Your task to perform on an android device: turn off translation in the chrome app Image 0: 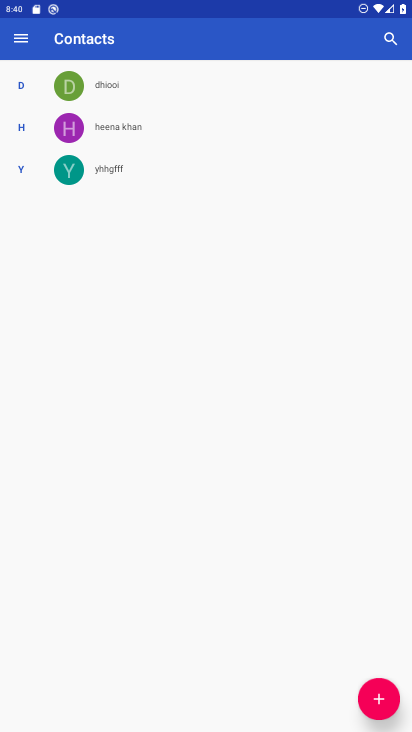
Step 0: press home button
Your task to perform on an android device: turn off translation in the chrome app Image 1: 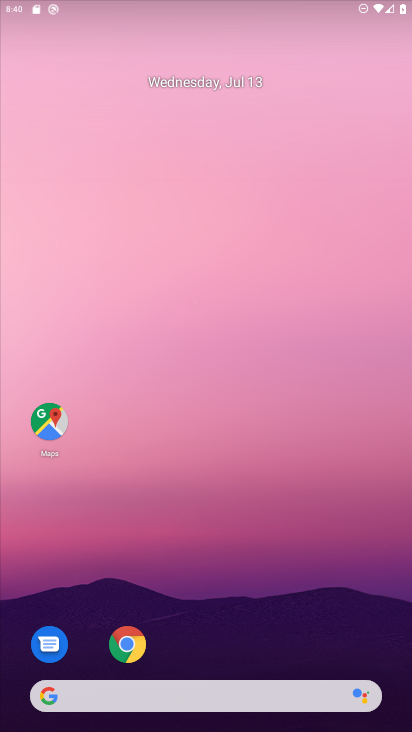
Step 1: drag from (204, 564) to (280, 98)
Your task to perform on an android device: turn off translation in the chrome app Image 2: 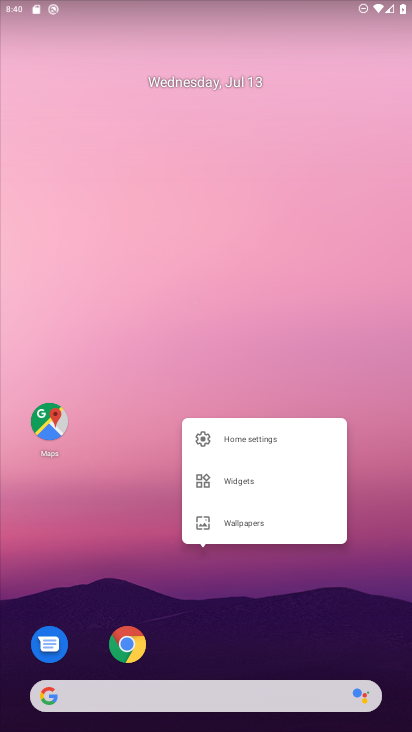
Step 2: click (147, 629)
Your task to perform on an android device: turn off translation in the chrome app Image 3: 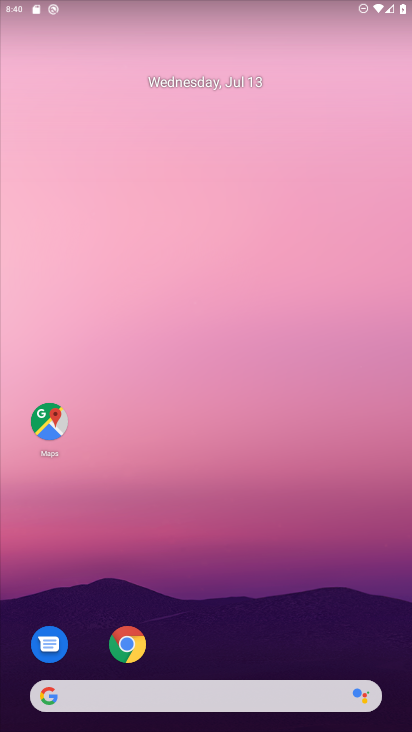
Step 3: click (144, 631)
Your task to perform on an android device: turn off translation in the chrome app Image 4: 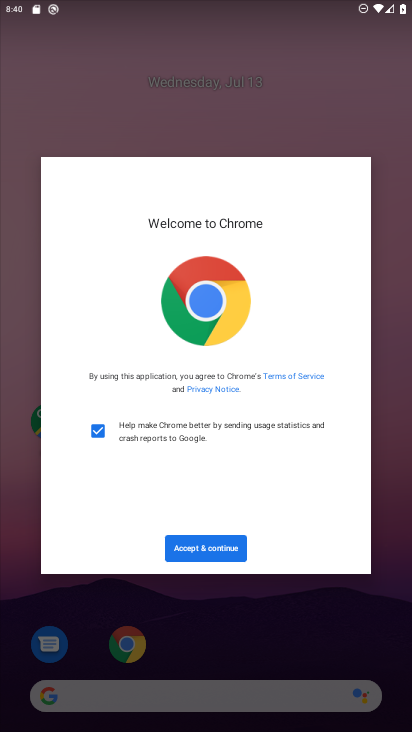
Step 4: click (232, 556)
Your task to perform on an android device: turn off translation in the chrome app Image 5: 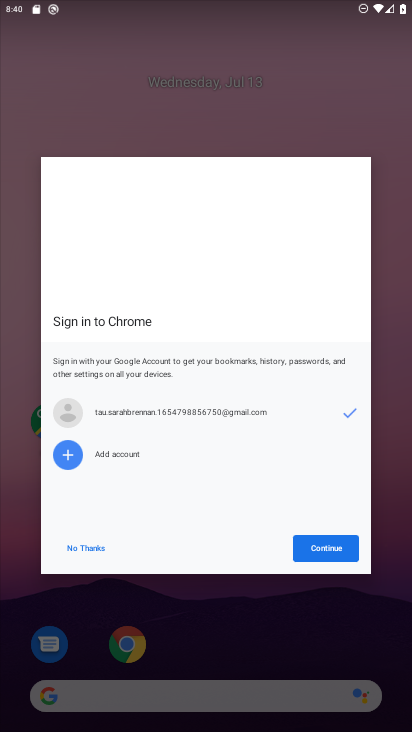
Step 5: click (332, 557)
Your task to perform on an android device: turn off translation in the chrome app Image 6: 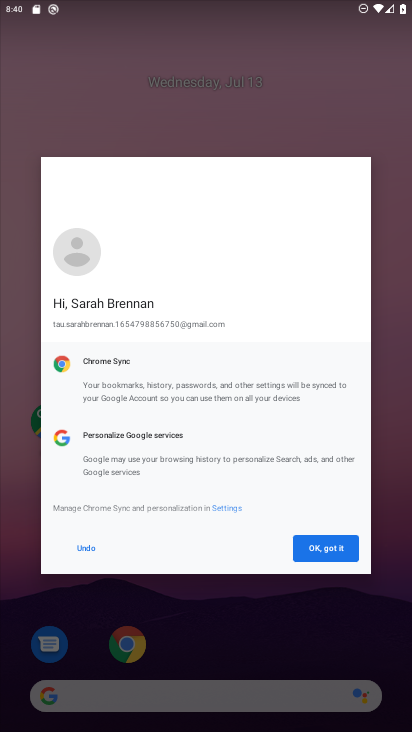
Step 6: click (337, 551)
Your task to perform on an android device: turn off translation in the chrome app Image 7: 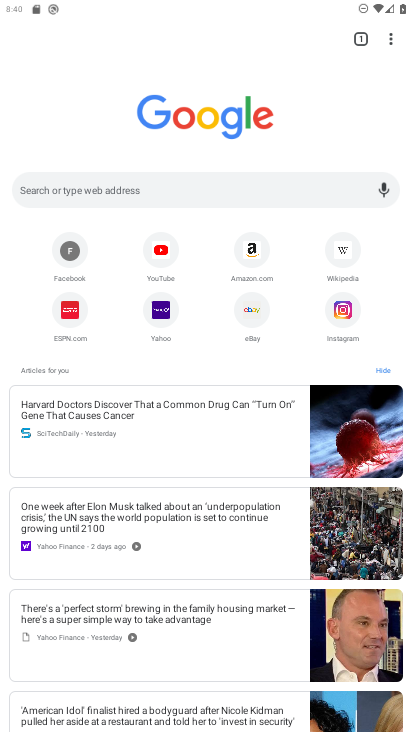
Step 7: drag from (387, 42) to (260, 336)
Your task to perform on an android device: turn off translation in the chrome app Image 8: 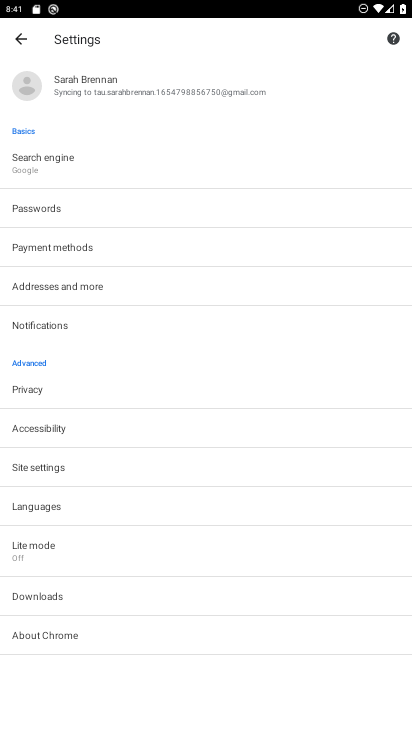
Step 8: click (58, 500)
Your task to perform on an android device: turn off translation in the chrome app Image 9: 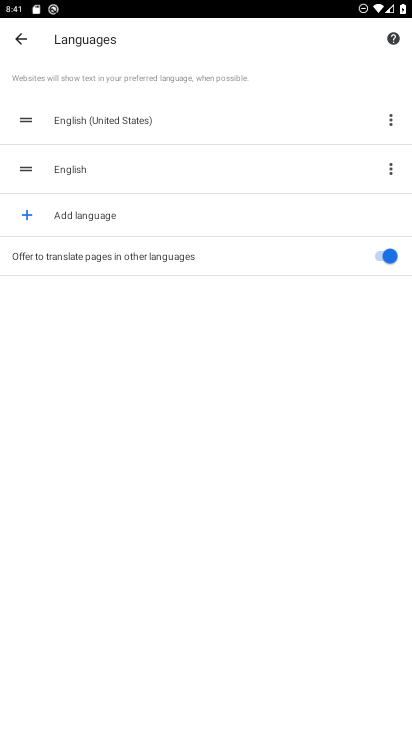
Step 9: click (394, 253)
Your task to perform on an android device: turn off translation in the chrome app Image 10: 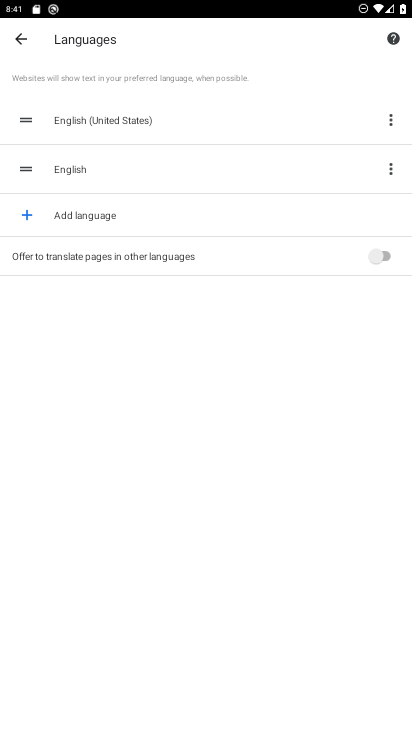
Step 10: task complete